Your task to perform on an android device: Open Chrome and go to settings Image 0: 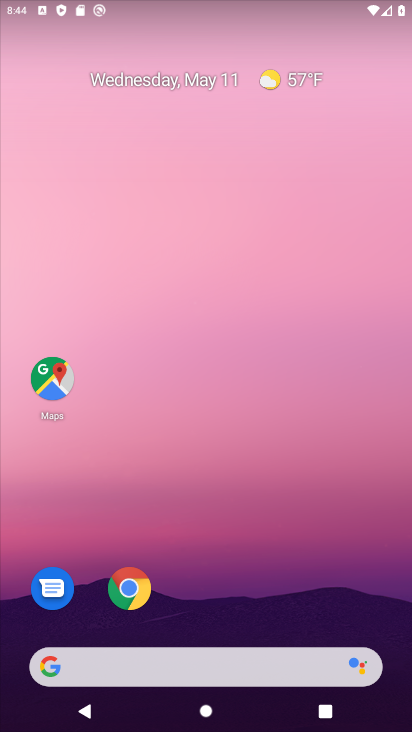
Step 0: click (130, 584)
Your task to perform on an android device: Open Chrome and go to settings Image 1: 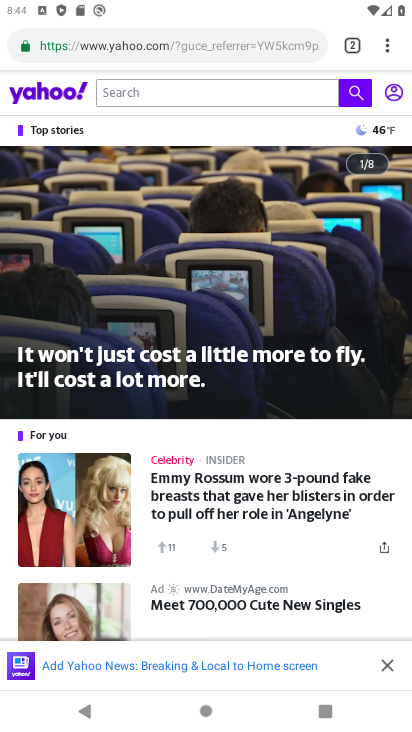
Step 1: click (382, 44)
Your task to perform on an android device: Open Chrome and go to settings Image 2: 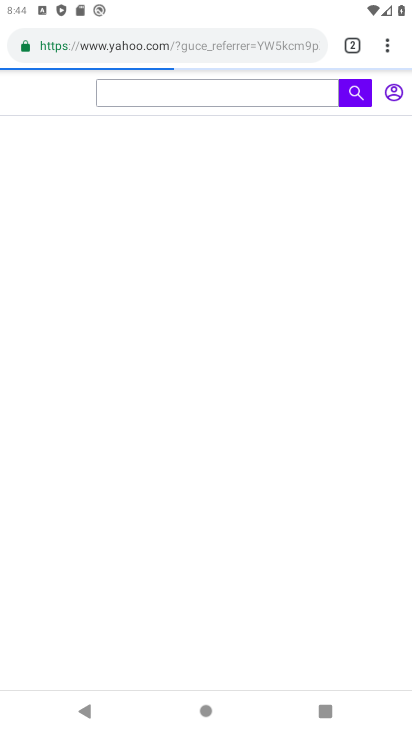
Step 2: click (388, 50)
Your task to perform on an android device: Open Chrome and go to settings Image 3: 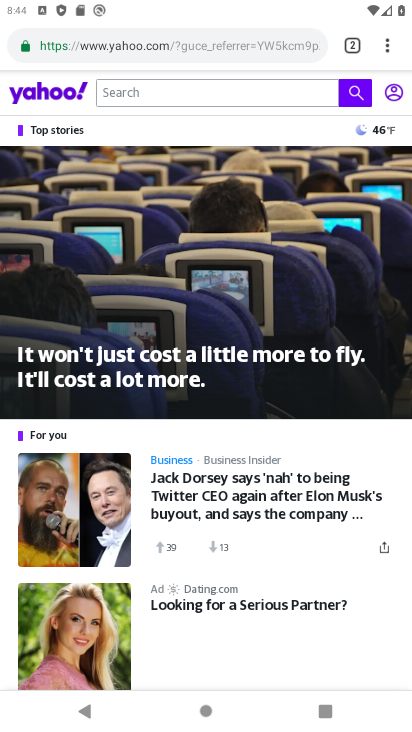
Step 3: click (389, 39)
Your task to perform on an android device: Open Chrome and go to settings Image 4: 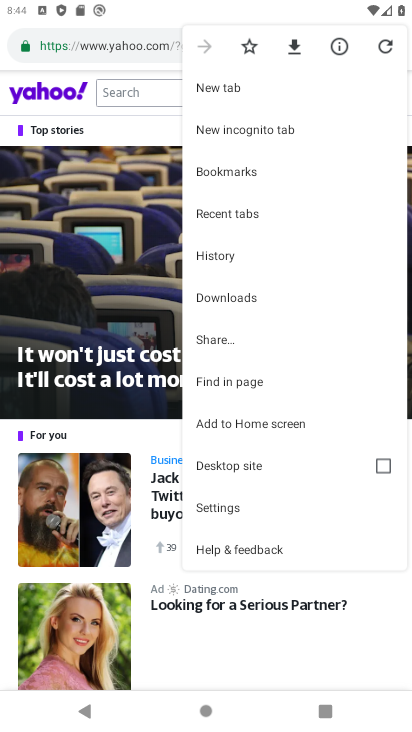
Step 4: click (240, 509)
Your task to perform on an android device: Open Chrome and go to settings Image 5: 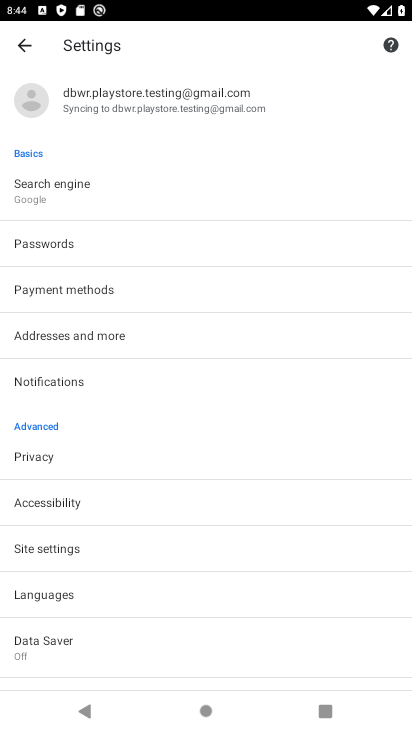
Step 5: task complete